Your task to perform on an android device: Show me recent news Image 0: 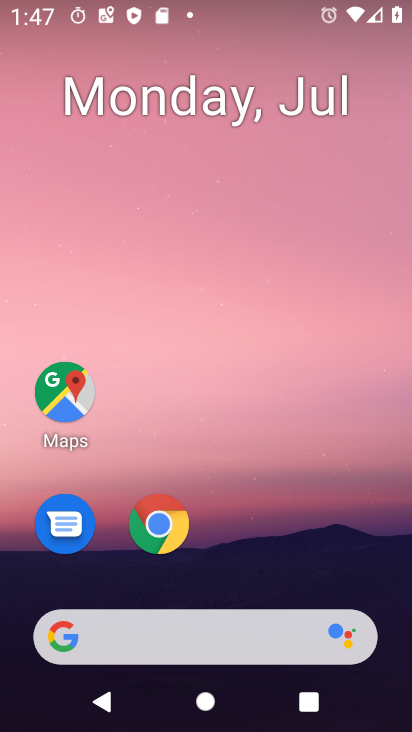
Step 0: press home button
Your task to perform on an android device: Show me recent news Image 1: 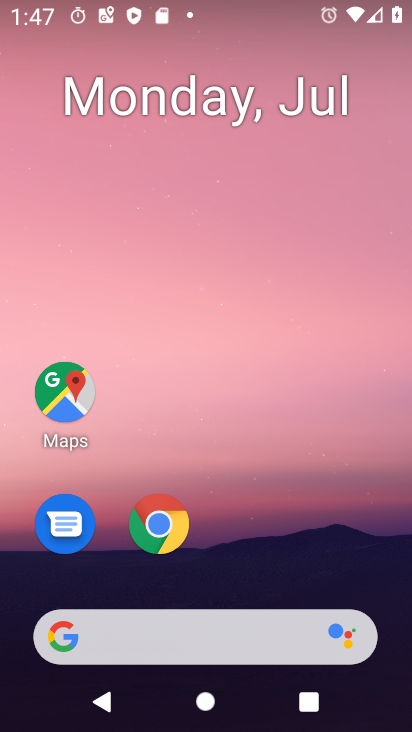
Step 1: click (66, 635)
Your task to perform on an android device: Show me recent news Image 2: 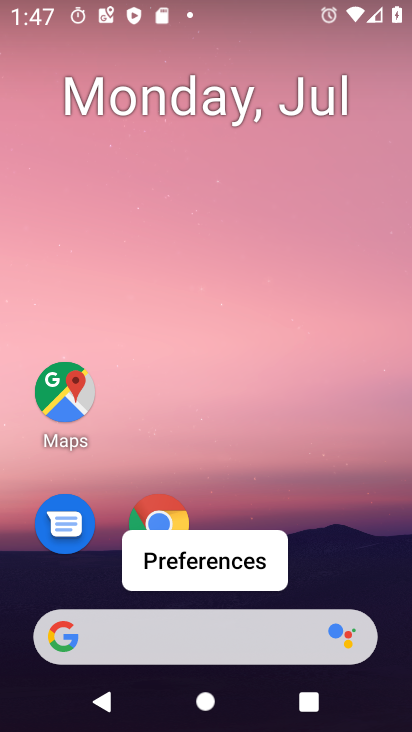
Step 2: click (66, 635)
Your task to perform on an android device: Show me recent news Image 3: 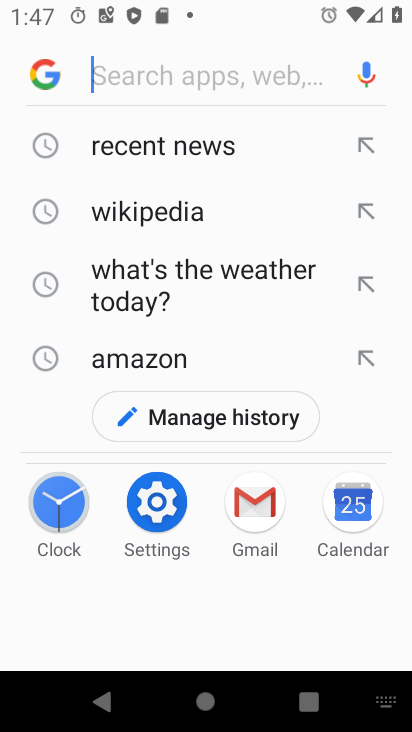
Step 3: click (177, 144)
Your task to perform on an android device: Show me recent news Image 4: 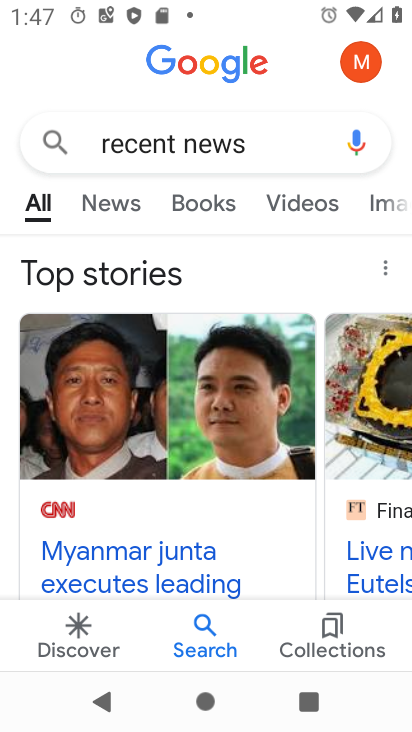
Step 4: task complete